Your task to perform on an android device: Play the last video I watched on Youtube Image 0: 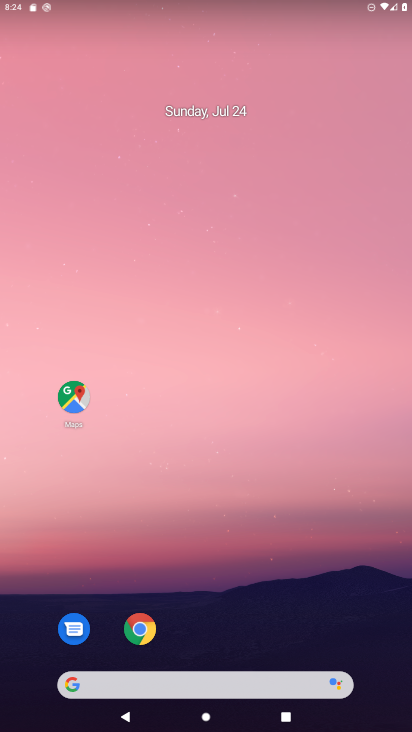
Step 0: drag from (373, 633) to (178, 0)
Your task to perform on an android device: Play the last video I watched on Youtube Image 1: 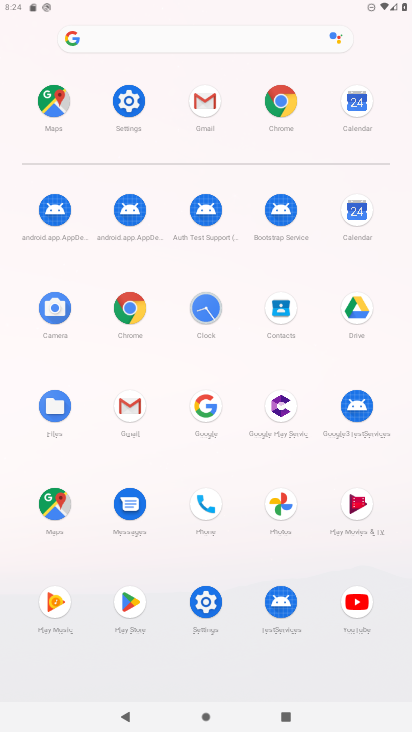
Step 1: click (340, 591)
Your task to perform on an android device: Play the last video I watched on Youtube Image 2: 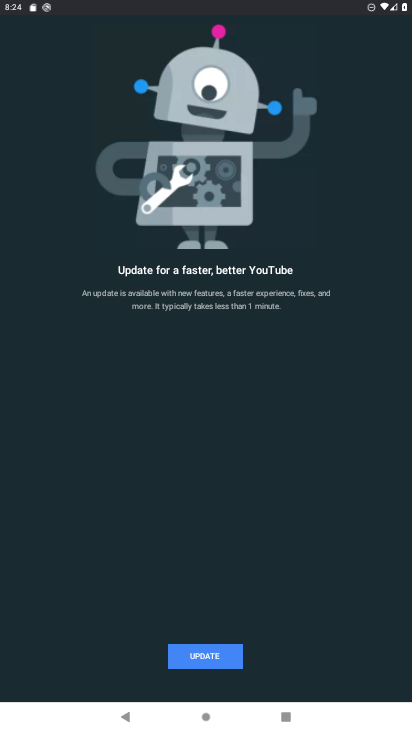
Step 2: click (188, 663)
Your task to perform on an android device: Play the last video I watched on Youtube Image 3: 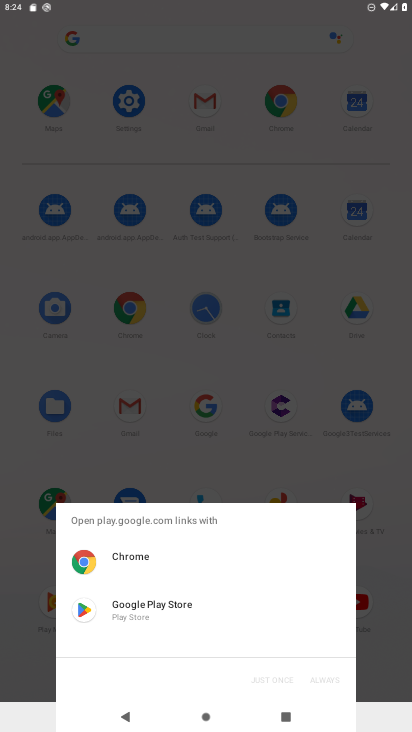
Step 3: click (130, 606)
Your task to perform on an android device: Play the last video I watched on Youtube Image 4: 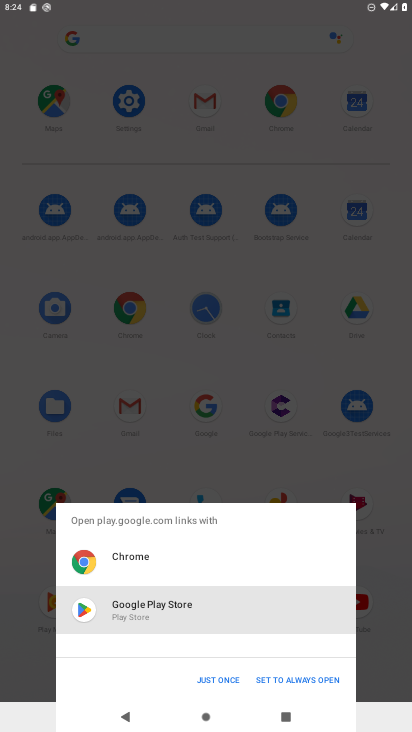
Step 4: click (211, 683)
Your task to perform on an android device: Play the last video I watched on Youtube Image 5: 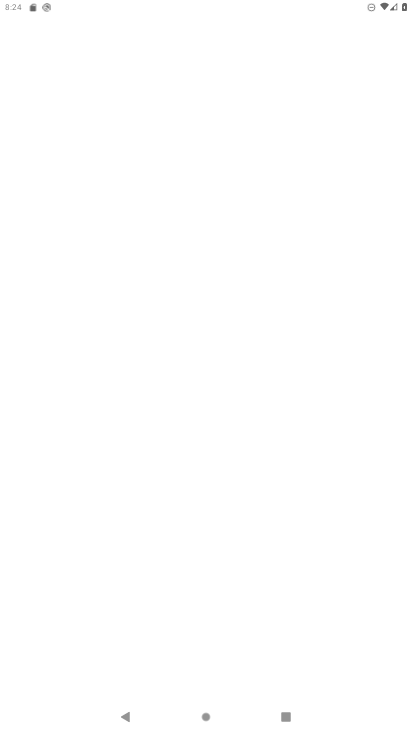
Step 5: click (91, 130)
Your task to perform on an android device: Play the last video I watched on Youtube Image 6: 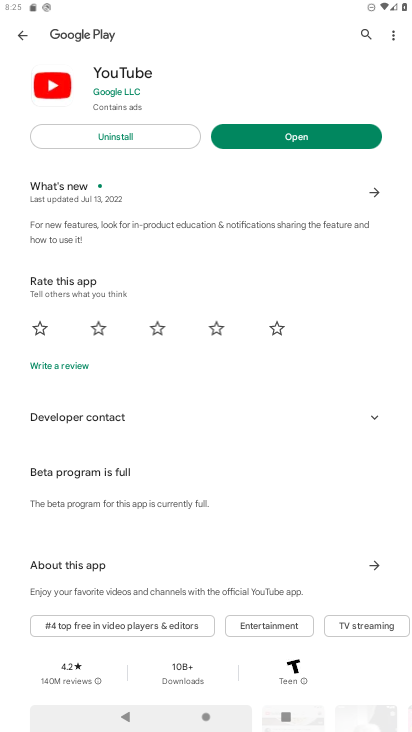
Step 6: click (286, 133)
Your task to perform on an android device: Play the last video I watched on Youtube Image 7: 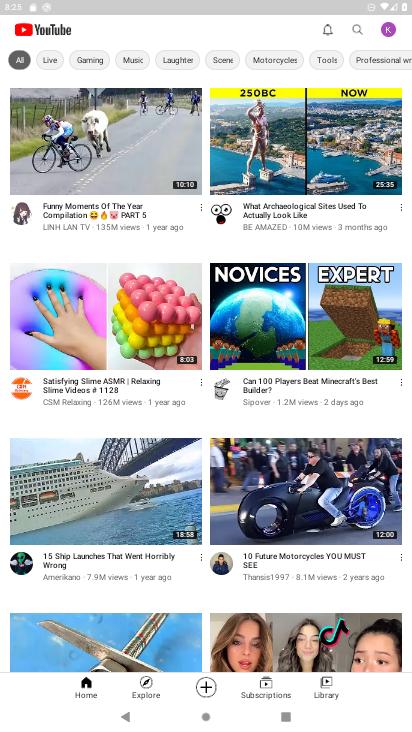
Step 7: task complete